Your task to perform on an android device: turn on notifications settings in the gmail app Image 0: 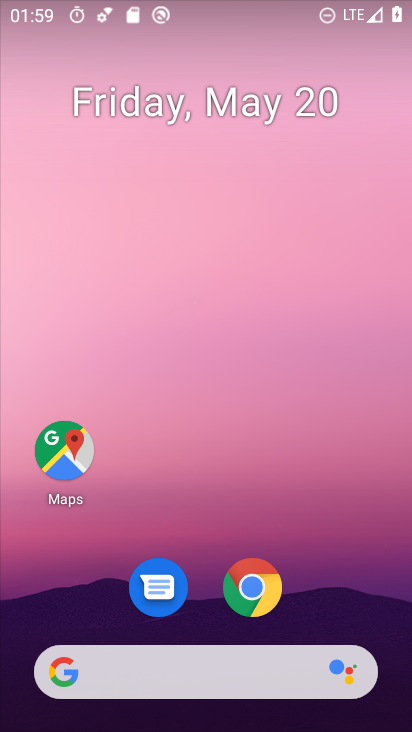
Step 0: drag from (351, 599) to (374, 244)
Your task to perform on an android device: turn on notifications settings in the gmail app Image 1: 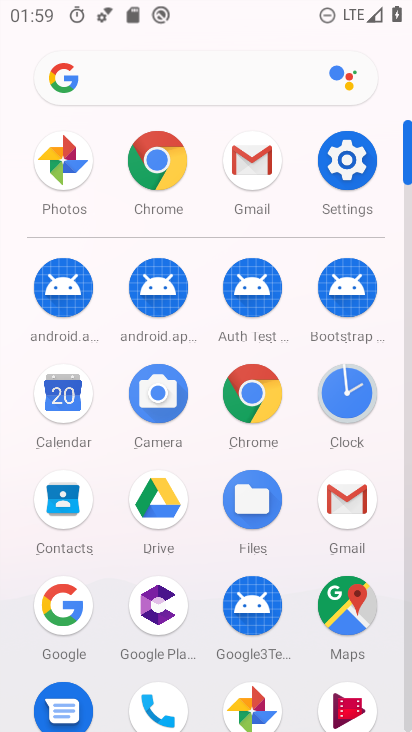
Step 1: click (278, 193)
Your task to perform on an android device: turn on notifications settings in the gmail app Image 2: 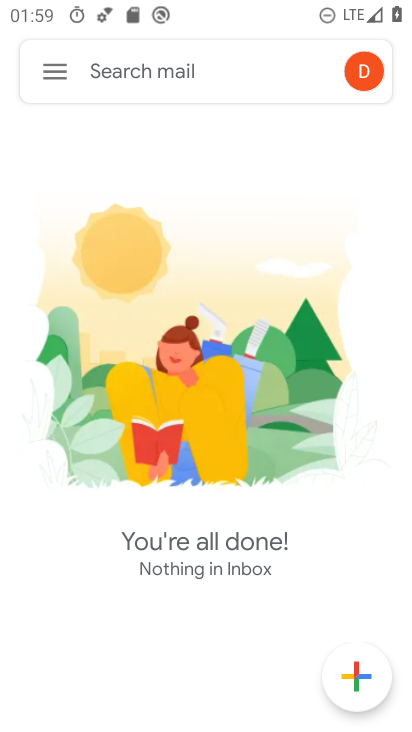
Step 2: click (69, 103)
Your task to perform on an android device: turn on notifications settings in the gmail app Image 3: 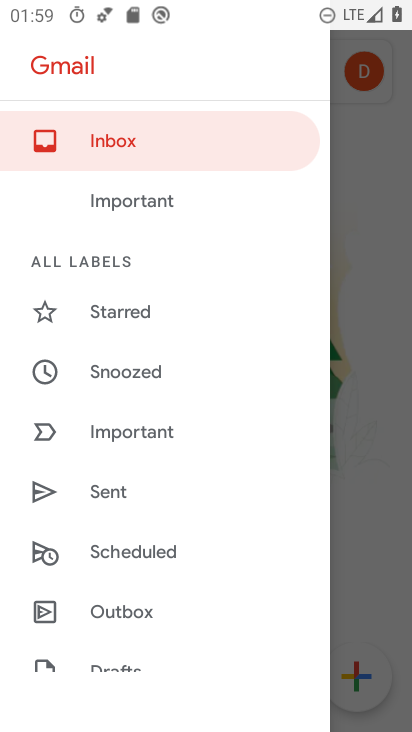
Step 3: drag from (236, 425) to (245, 356)
Your task to perform on an android device: turn on notifications settings in the gmail app Image 4: 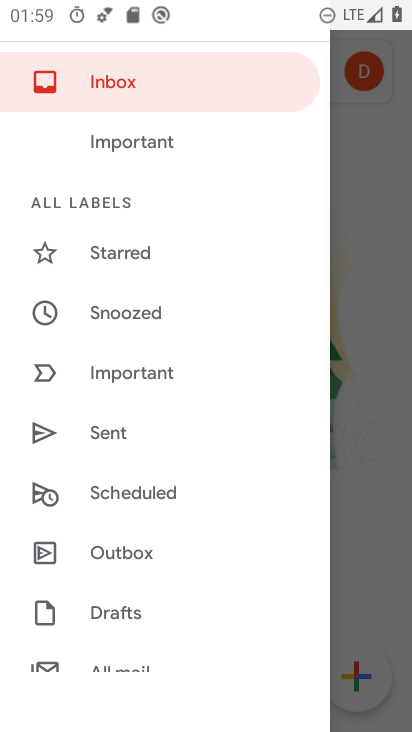
Step 4: drag from (250, 442) to (254, 370)
Your task to perform on an android device: turn on notifications settings in the gmail app Image 5: 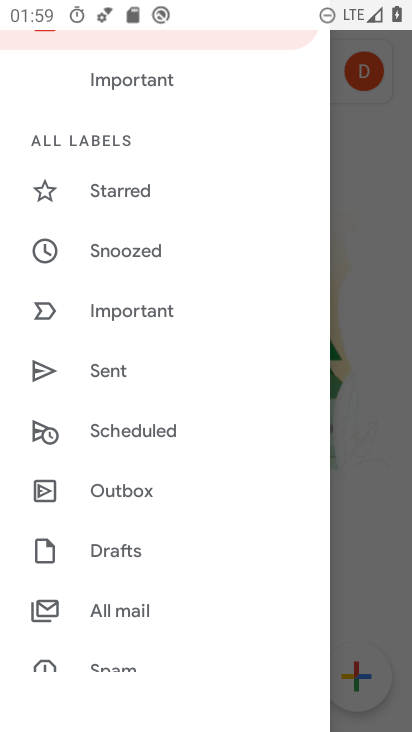
Step 5: drag from (252, 462) to (252, 400)
Your task to perform on an android device: turn on notifications settings in the gmail app Image 6: 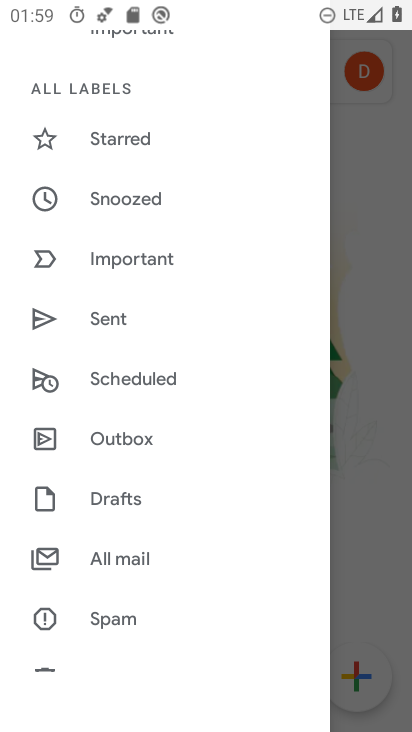
Step 6: drag from (257, 521) to (257, 433)
Your task to perform on an android device: turn on notifications settings in the gmail app Image 7: 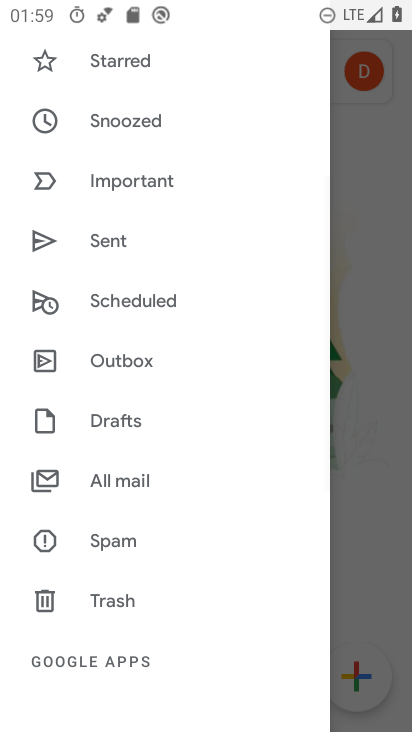
Step 7: drag from (260, 566) to (260, 523)
Your task to perform on an android device: turn on notifications settings in the gmail app Image 8: 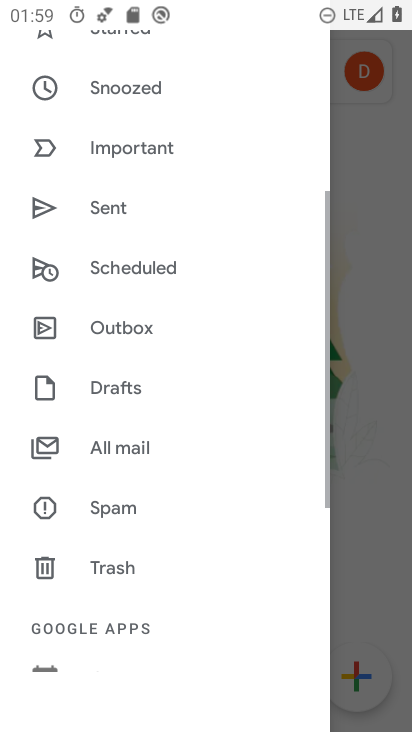
Step 8: click (260, 496)
Your task to perform on an android device: turn on notifications settings in the gmail app Image 9: 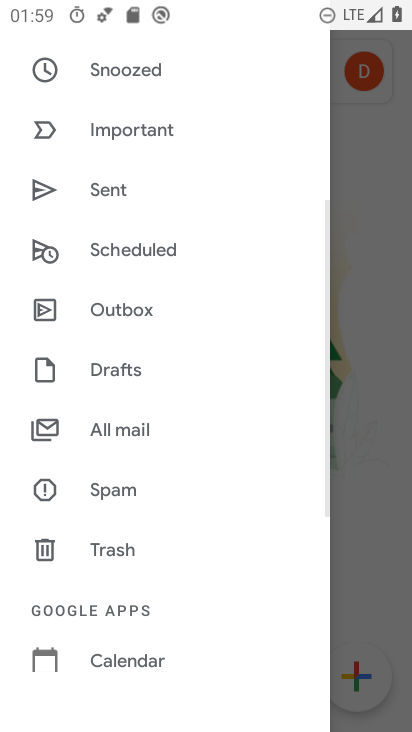
Step 9: drag from (260, 567) to (264, 492)
Your task to perform on an android device: turn on notifications settings in the gmail app Image 10: 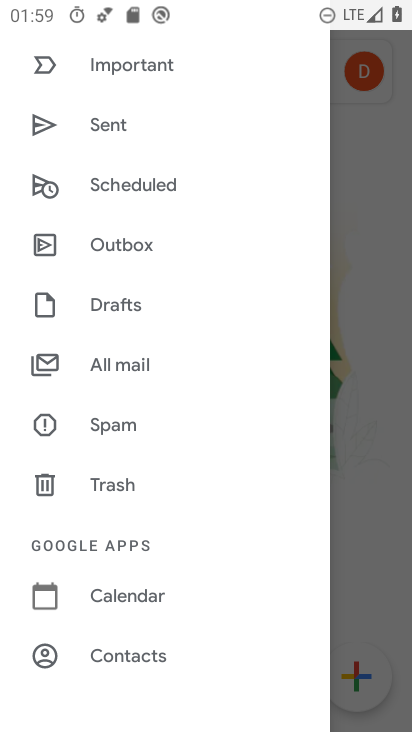
Step 10: drag from (261, 596) to (261, 533)
Your task to perform on an android device: turn on notifications settings in the gmail app Image 11: 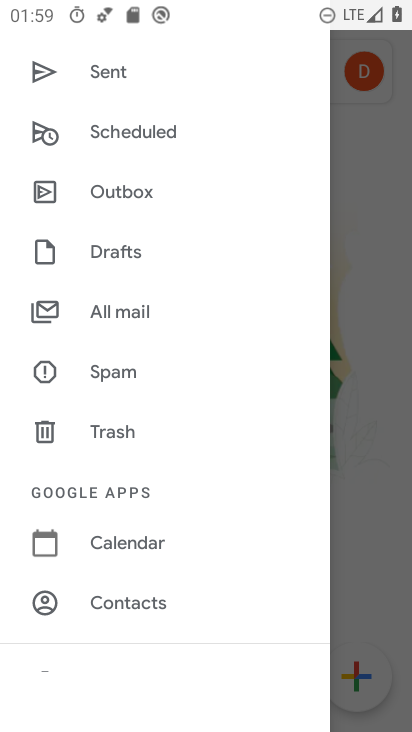
Step 11: drag from (259, 614) to (261, 548)
Your task to perform on an android device: turn on notifications settings in the gmail app Image 12: 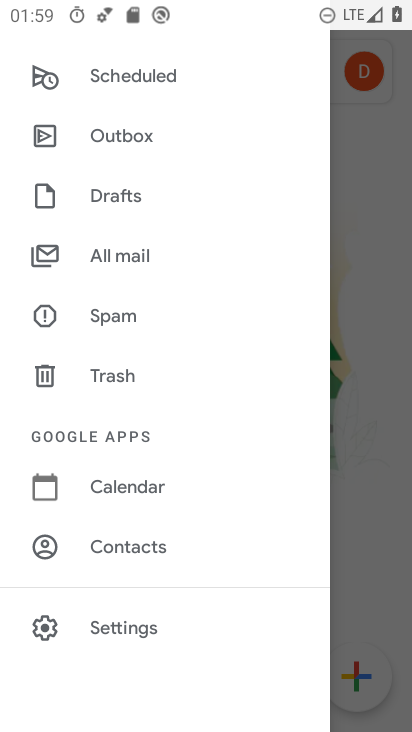
Step 12: drag from (255, 622) to (255, 554)
Your task to perform on an android device: turn on notifications settings in the gmail app Image 13: 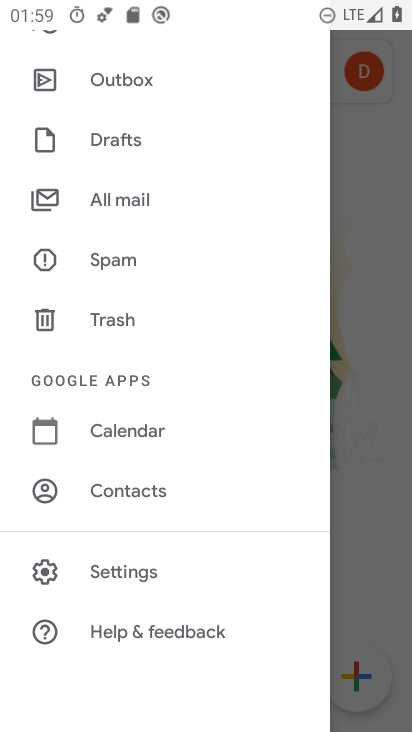
Step 13: drag from (252, 611) to (254, 555)
Your task to perform on an android device: turn on notifications settings in the gmail app Image 14: 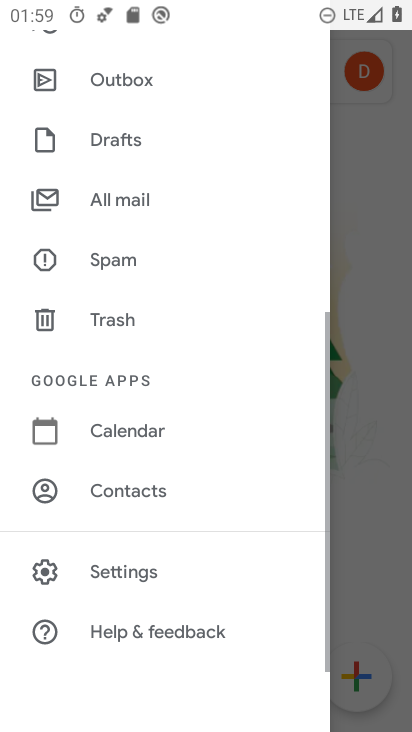
Step 14: click (180, 565)
Your task to perform on an android device: turn on notifications settings in the gmail app Image 15: 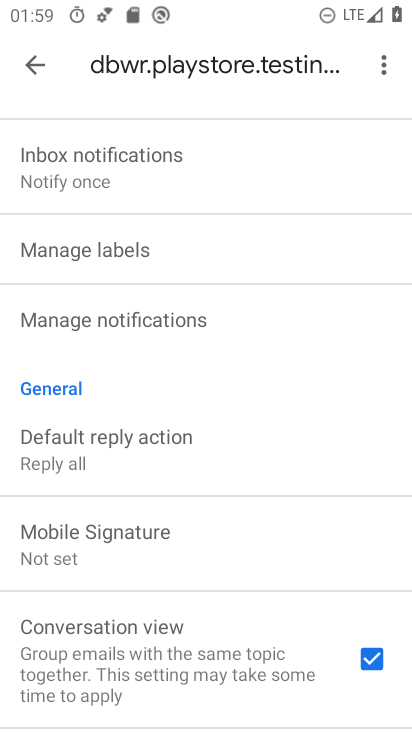
Step 15: drag from (244, 393) to (250, 482)
Your task to perform on an android device: turn on notifications settings in the gmail app Image 16: 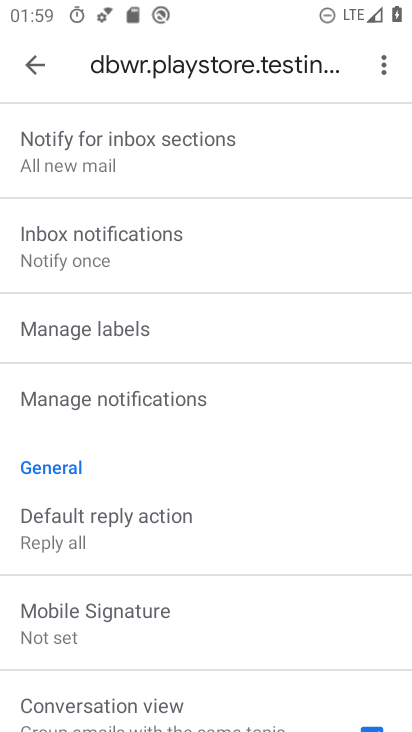
Step 16: drag from (254, 371) to (263, 467)
Your task to perform on an android device: turn on notifications settings in the gmail app Image 17: 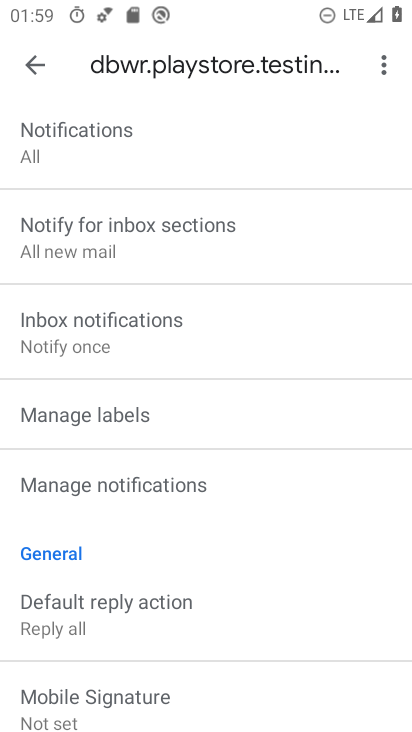
Step 17: drag from (265, 413) to (273, 480)
Your task to perform on an android device: turn on notifications settings in the gmail app Image 18: 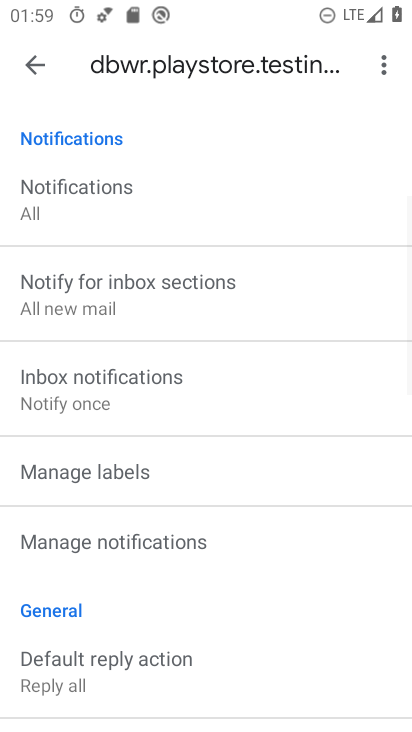
Step 18: click (221, 543)
Your task to perform on an android device: turn on notifications settings in the gmail app Image 19: 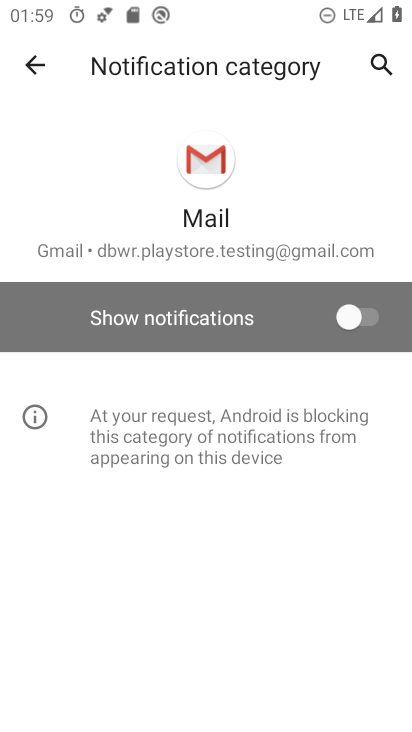
Step 19: click (340, 314)
Your task to perform on an android device: turn on notifications settings in the gmail app Image 20: 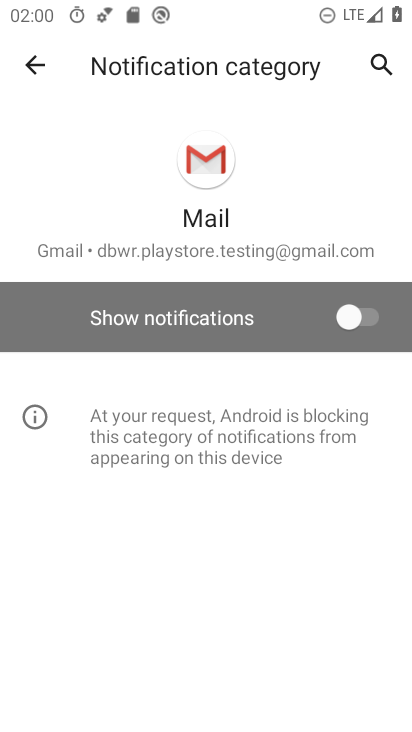
Step 20: click (341, 317)
Your task to perform on an android device: turn on notifications settings in the gmail app Image 21: 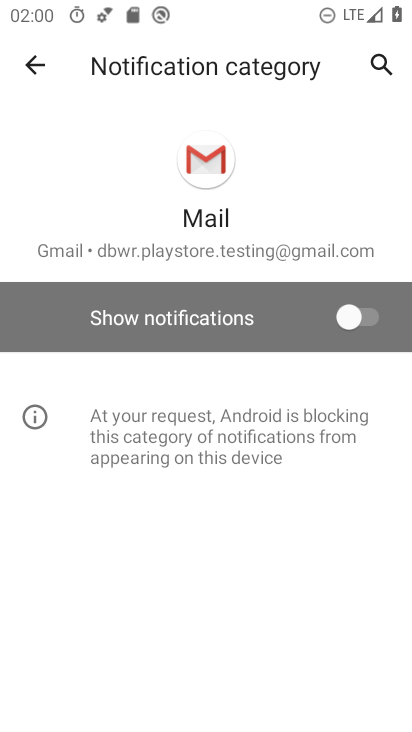
Step 21: task complete